Your task to perform on an android device: install app "Paramount+ | Peak Streaming" Image 0: 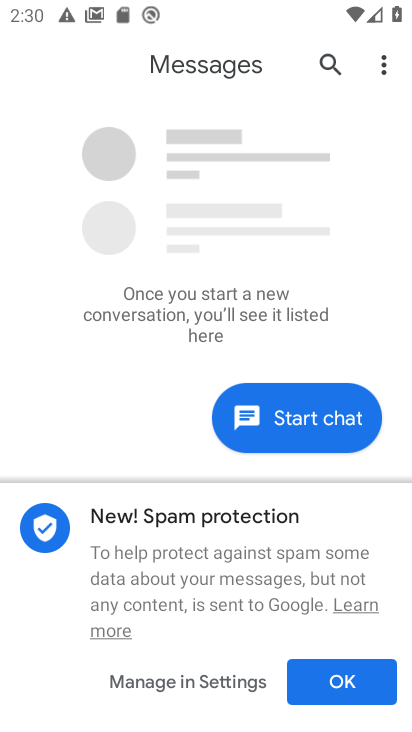
Step 0: press back button
Your task to perform on an android device: install app "Paramount+ | Peak Streaming" Image 1: 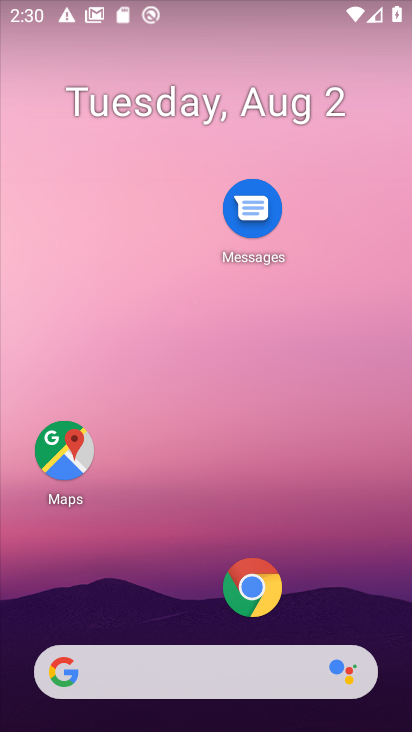
Step 1: drag from (177, 572) to (203, 116)
Your task to perform on an android device: install app "Paramount+ | Peak Streaming" Image 2: 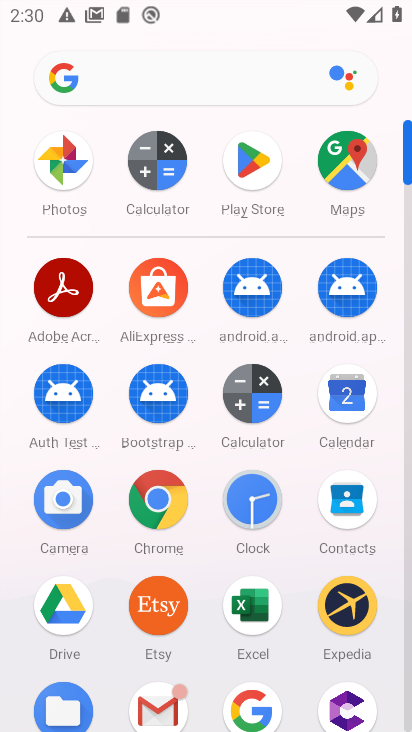
Step 2: click (241, 139)
Your task to perform on an android device: install app "Paramount+ | Peak Streaming" Image 3: 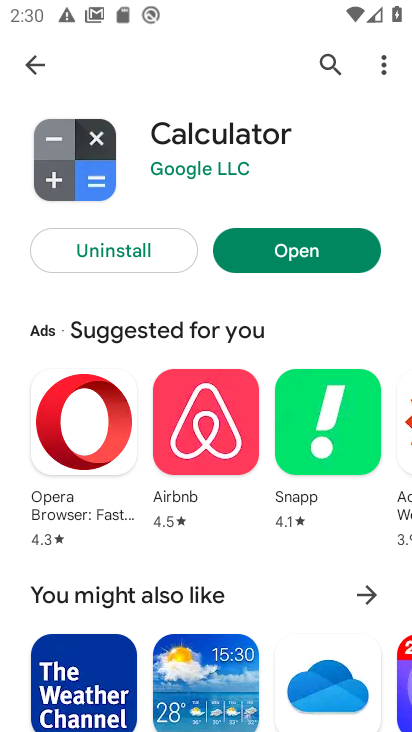
Step 3: click (328, 61)
Your task to perform on an android device: install app "Paramount+ | Peak Streaming" Image 4: 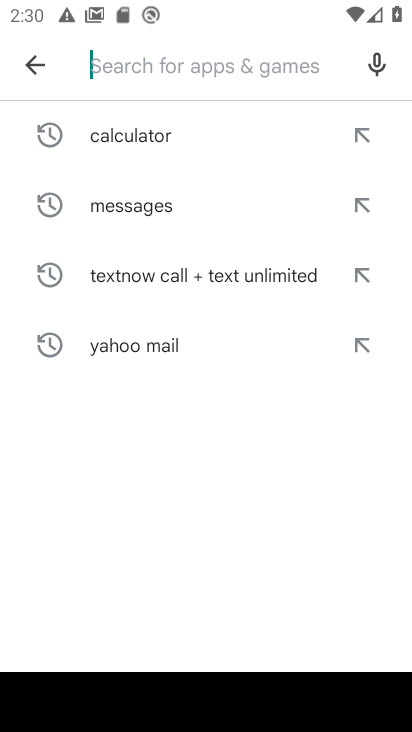
Step 4: type "Paramount+ | Peak Streaming"
Your task to perform on an android device: install app "Paramount+ | Peak Streaming" Image 5: 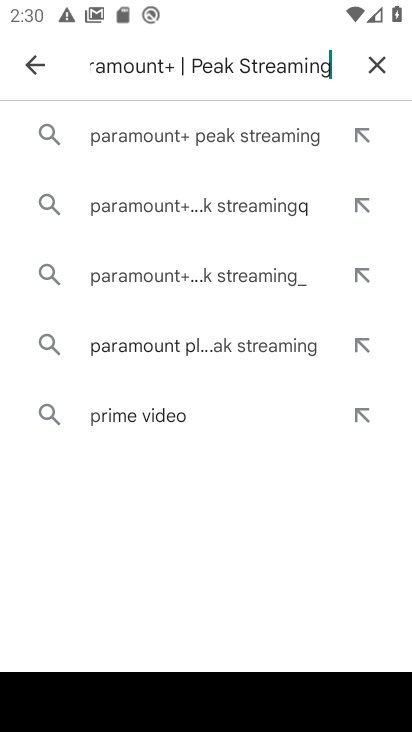
Step 5: type ""
Your task to perform on an android device: install app "Paramount+ | Peak Streaming" Image 6: 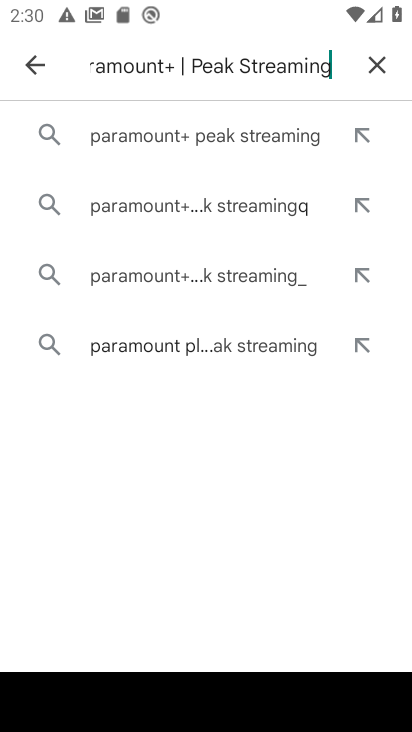
Step 6: click (240, 144)
Your task to perform on an android device: install app "Paramount+ | Peak Streaming" Image 7: 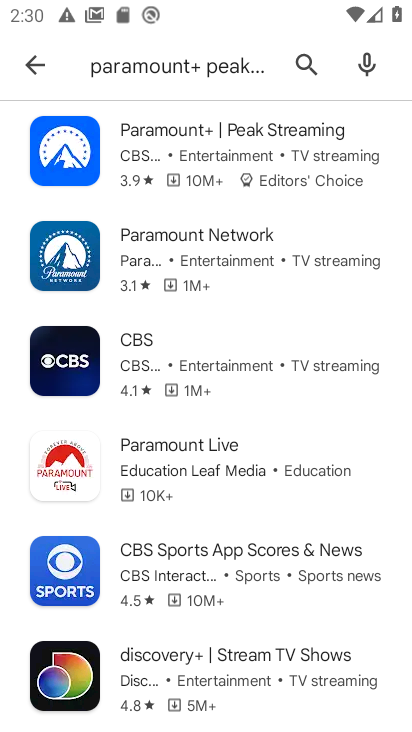
Step 7: click (240, 144)
Your task to perform on an android device: install app "Paramount+ | Peak Streaming" Image 8: 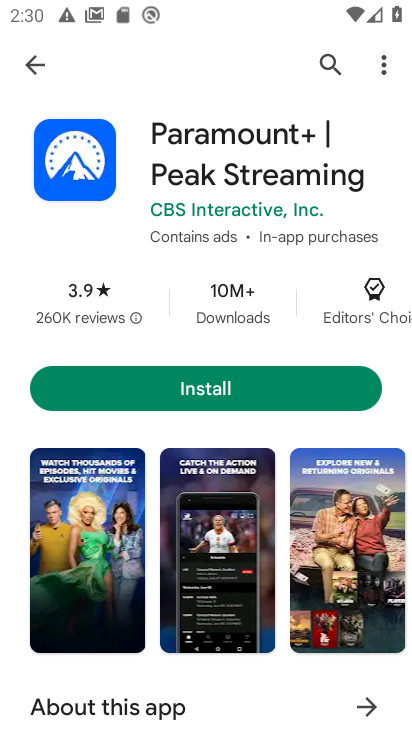
Step 8: click (244, 384)
Your task to perform on an android device: install app "Paramount+ | Peak Streaming" Image 9: 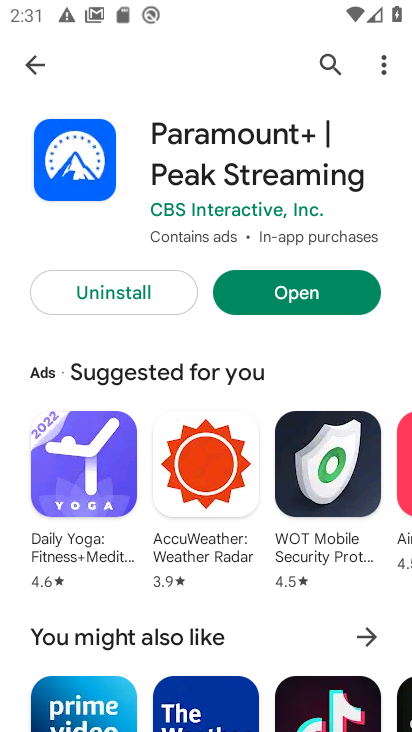
Step 9: task complete